Your task to perform on an android device: Show me recent news Image 0: 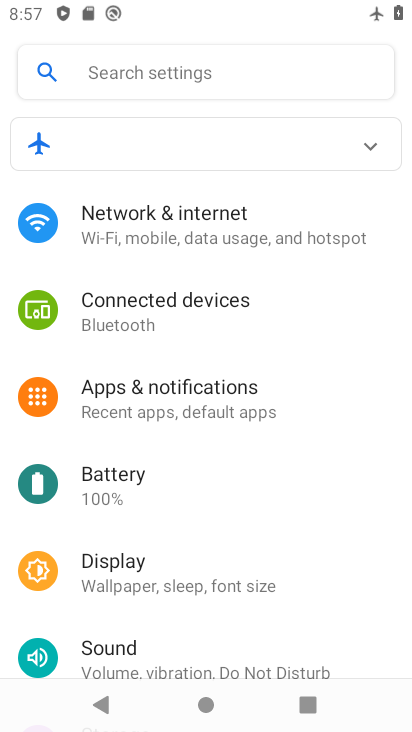
Step 0: press home button
Your task to perform on an android device: Show me recent news Image 1: 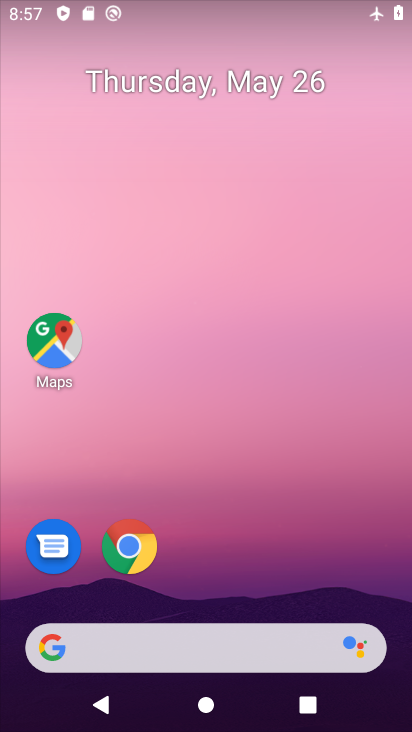
Step 1: click (219, 644)
Your task to perform on an android device: Show me recent news Image 2: 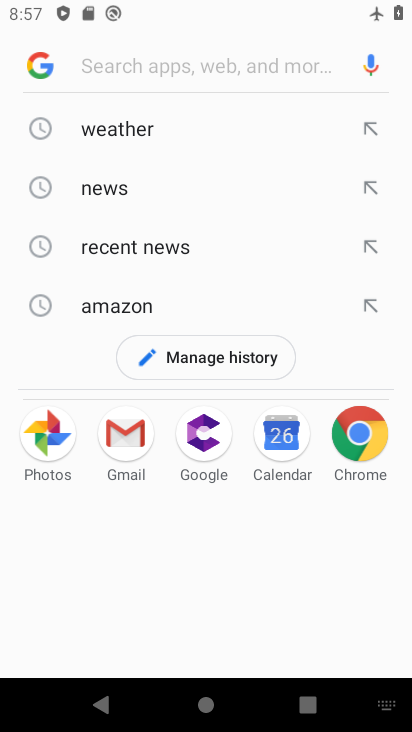
Step 2: click (194, 234)
Your task to perform on an android device: Show me recent news Image 3: 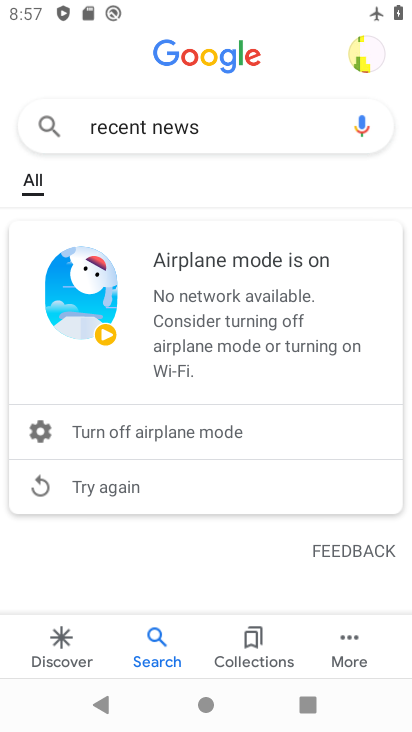
Step 3: task complete